Your task to perform on an android device: When is my next meeting? Image 0: 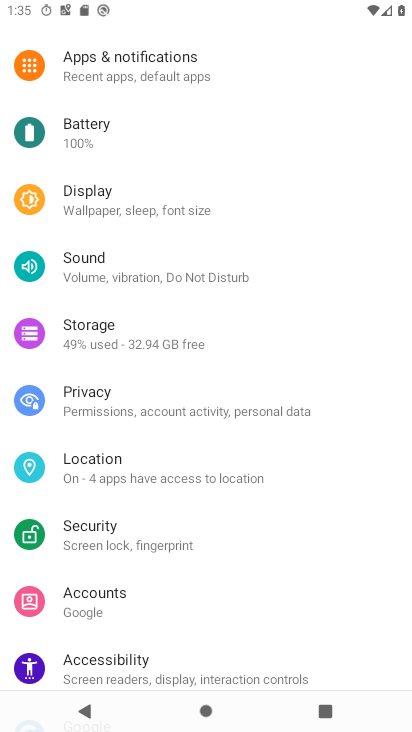
Step 0: press home button
Your task to perform on an android device: When is my next meeting? Image 1: 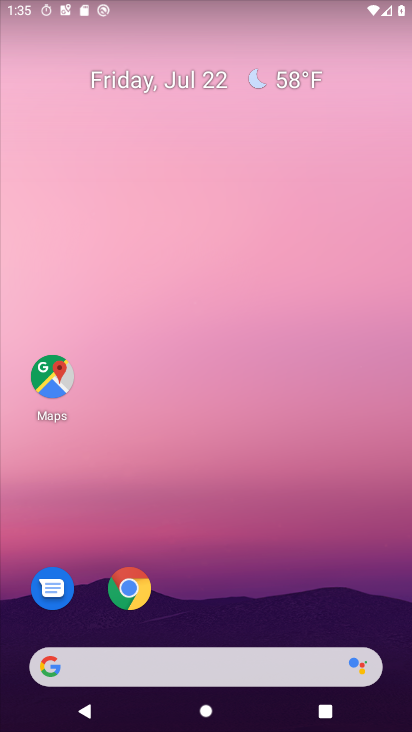
Step 1: drag from (176, 125) to (2, 355)
Your task to perform on an android device: When is my next meeting? Image 2: 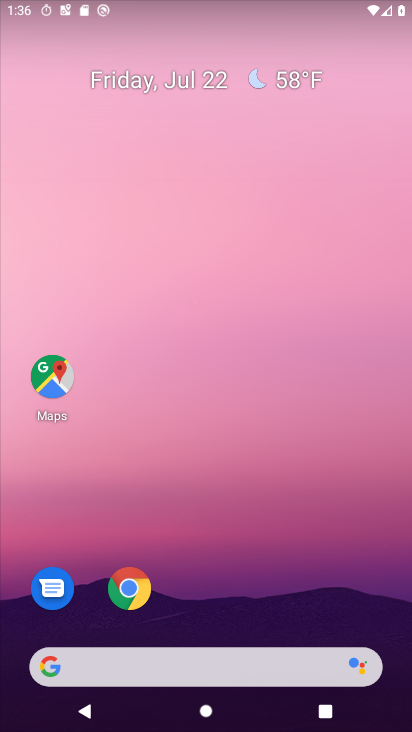
Step 2: drag from (105, 474) to (208, 75)
Your task to perform on an android device: When is my next meeting? Image 3: 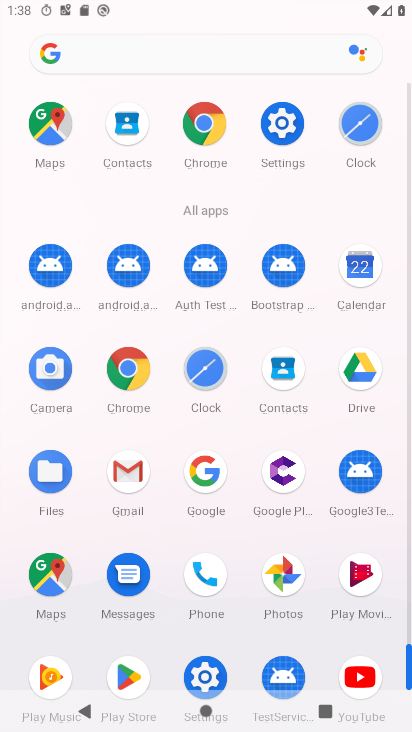
Step 3: click (349, 257)
Your task to perform on an android device: When is my next meeting? Image 4: 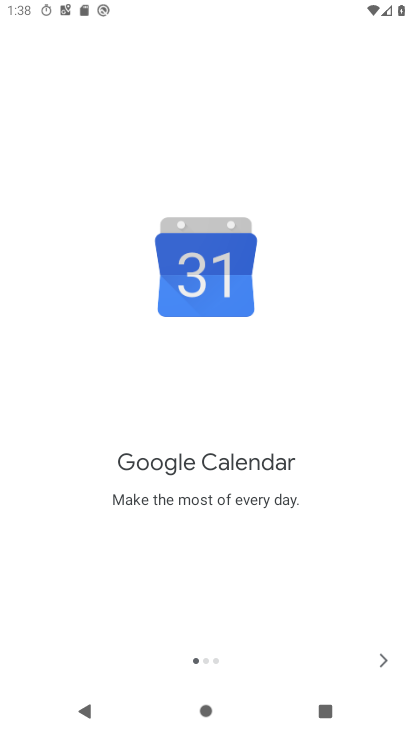
Step 4: click (370, 659)
Your task to perform on an android device: When is my next meeting? Image 5: 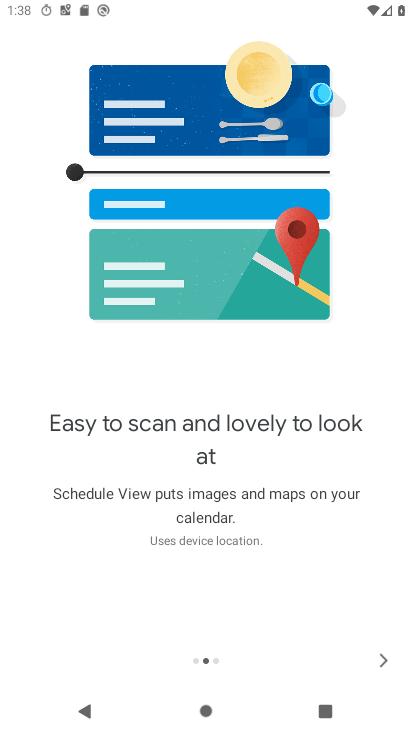
Step 5: click (370, 659)
Your task to perform on an android device: When is my next meeting? Image 6: 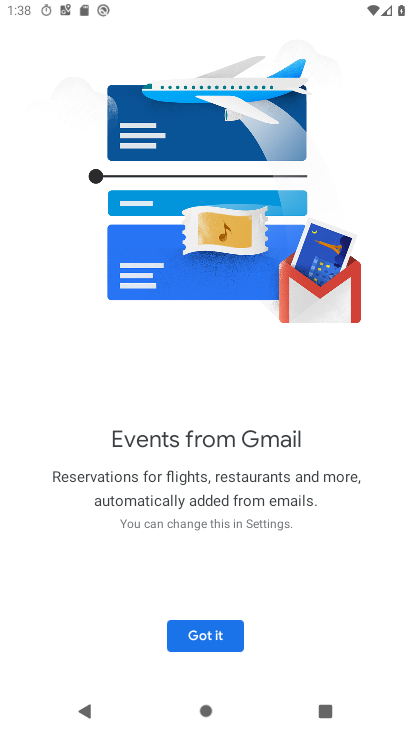
Step 6: click (212, 644)
Your task to perform on an android device: When is my next meeting? Image 7: 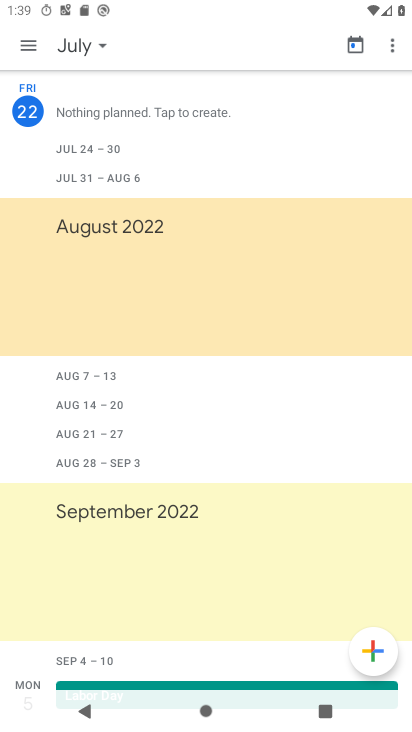
Step 7: click (102, 37)
Your task to perform on an android device: When is my next meeting? Image 8: 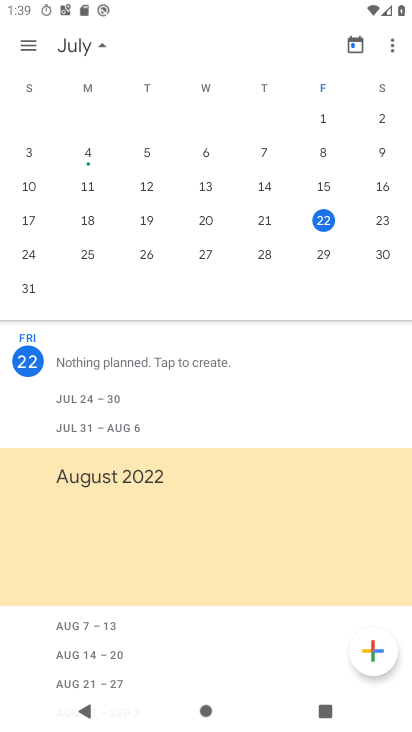
Step 8: click (130, 50)
Your task to perform on an android device: When is my next meeting? Image 9: 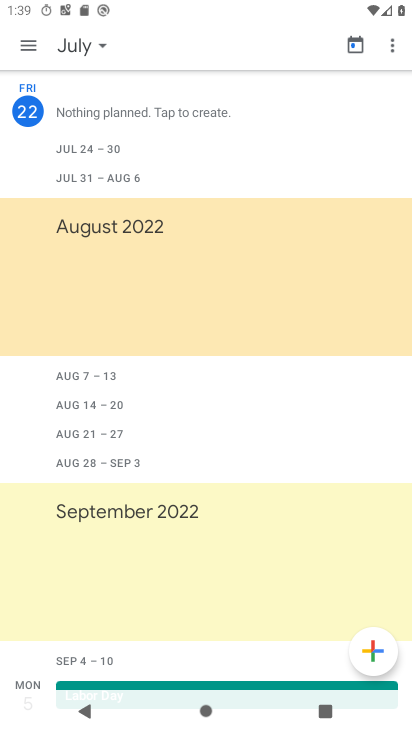
Step 9: task complete